Your task to perform on an android device: Search for vegetarian restaurants on Maps Image 0: 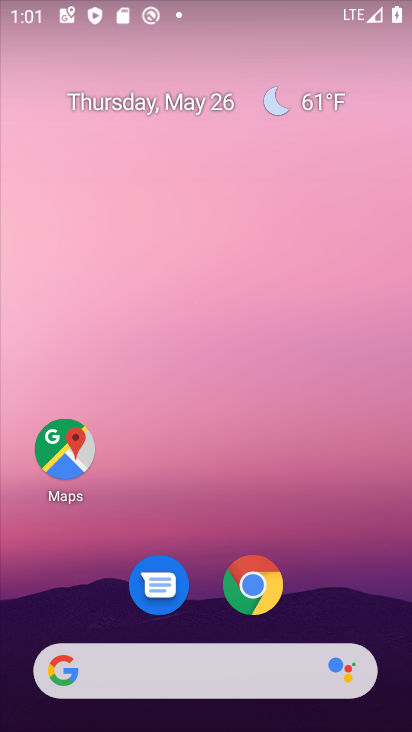
Step 0: click (67, 462)
Your task to perform on an android device: Search for vegetarian restaurants on Maps Image 1: 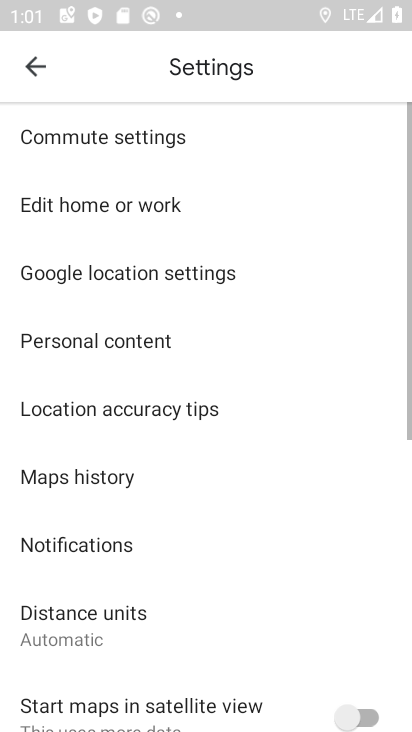
Step 1: click (39, 60)
Your task to perform on an android device: Search for vegetarian restaurants on Maps Image 2: 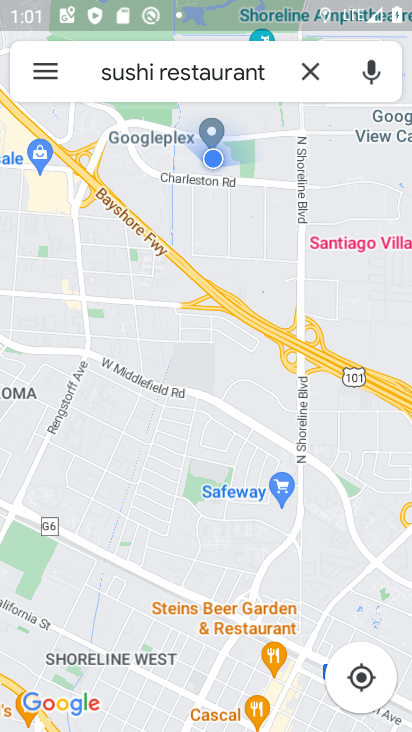
Step 2: click (313, 60)
Your task to perform on an android device: Search for vegetarian restaurants on Maps Image 3: 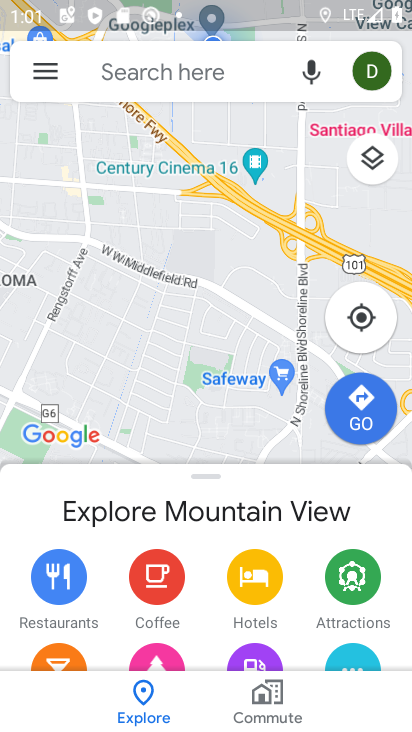
Step 3: click (172, 63)
Your task to perform on an android device: Search for vegetarian restaurants on Maps Image 4: 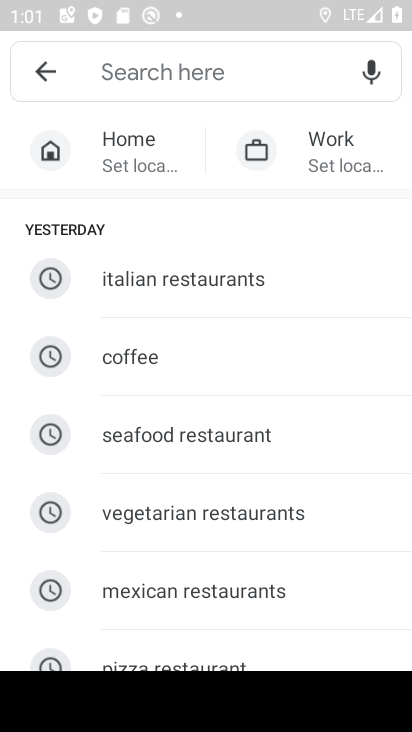
Step 4: click (211, 498)
Your task to perform on an android device: Search for vegetarian restaurants on Maps Image 5: 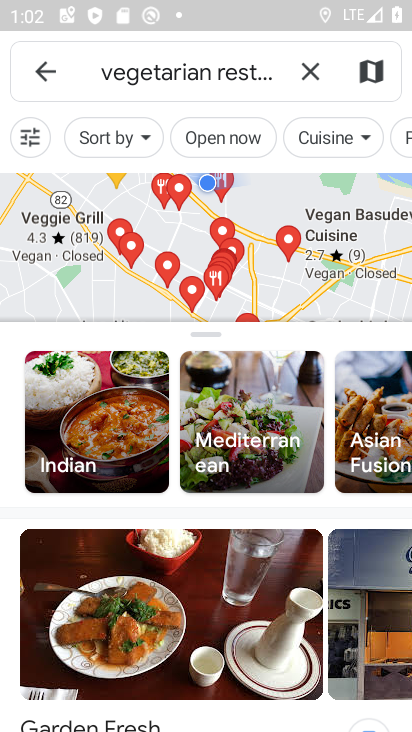
Step 5: task complete